Your task to perform on an android device: Show me popular games on the Play Store Image 0: 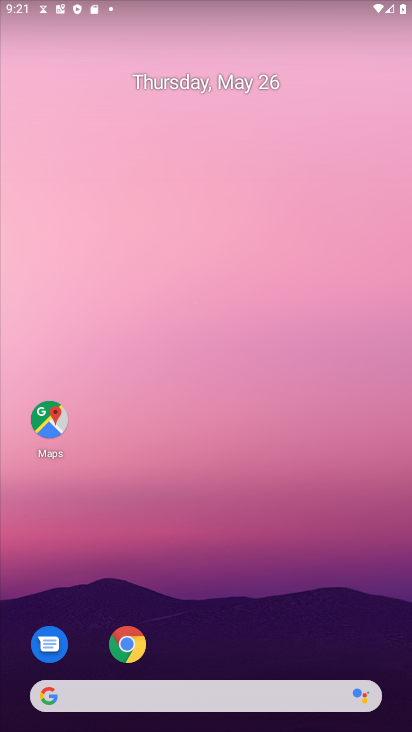
Step 0: drag from (219, 642) to (235, 122)
Your task to perform on an android device: Show me popular games on the Play Store Image 1: 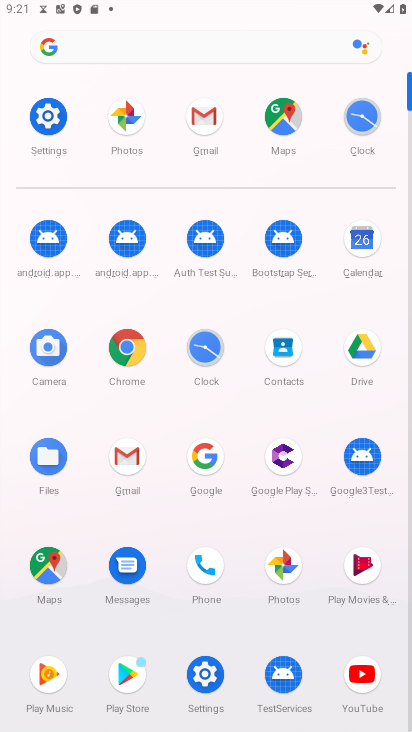
Step 1: click (124, 681)
Your task to perform on an android device: Show me popular games on the Play Store Image 2: 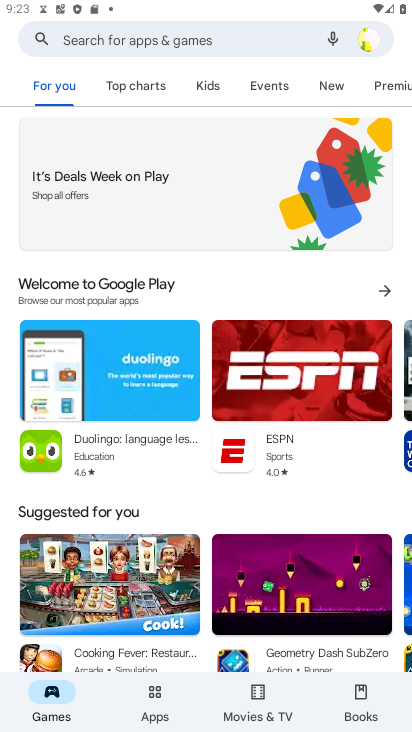
Step 2: drag from (194, 583) to (240, 174)
Your task to perform on an android device: Show me popular games on the Play Store Image 3: 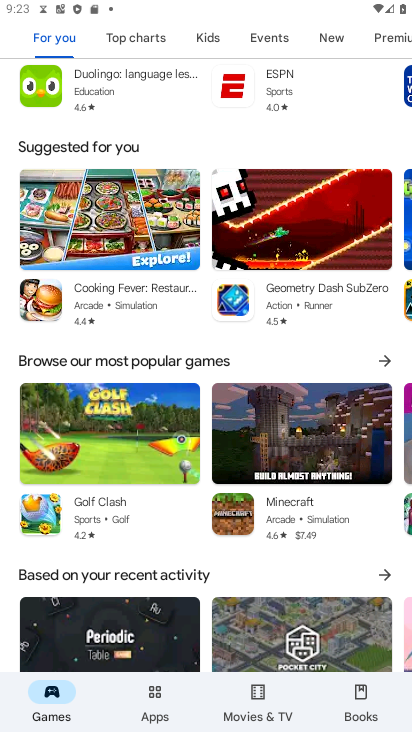
Step 3: click (386, 358)
Your task to perform on an android device: Show me popular games on the Play Store Image 4: 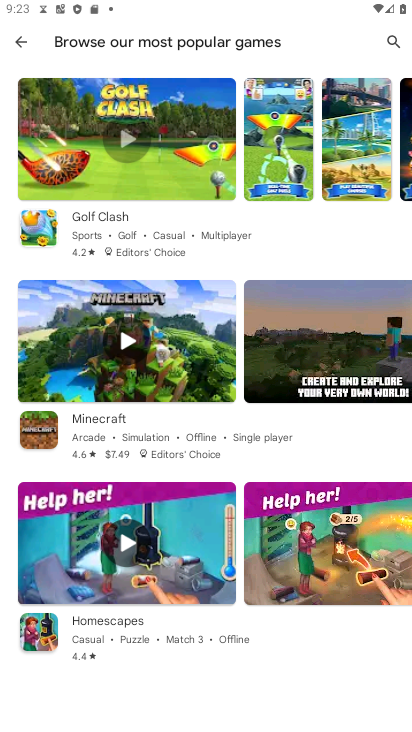
Step 4: task complete